Your task to perform on an android device: Open Maps and search for coffee Image 0: 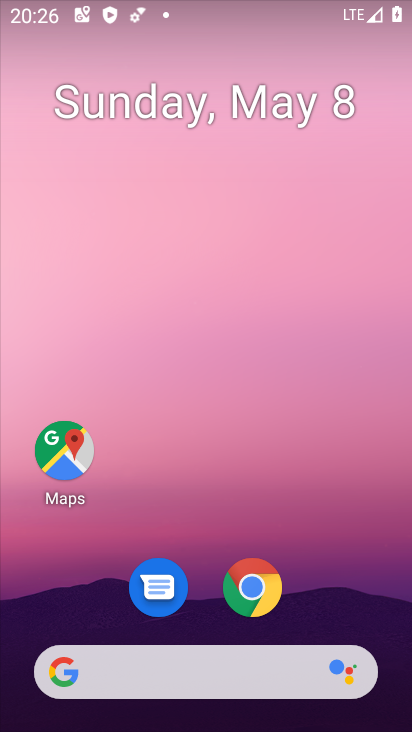
Step 0: click (67, 453)
Your task to perform on an android device: Open Maps and search for coffee Image 1: 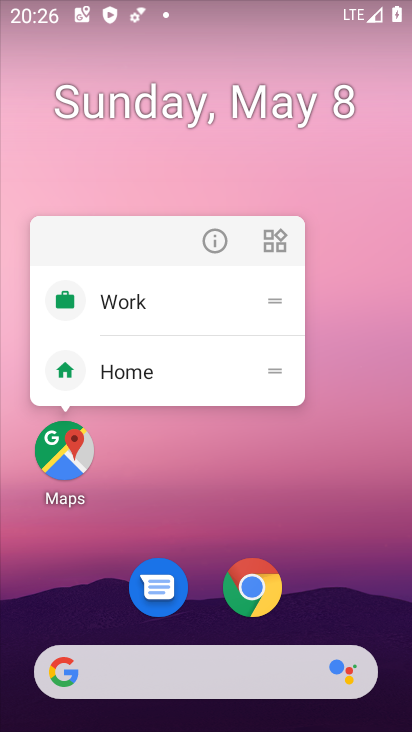
Step 1: click (67, 453)
Your task to perform on an android device: Open Maps and search for coffee Image 2: 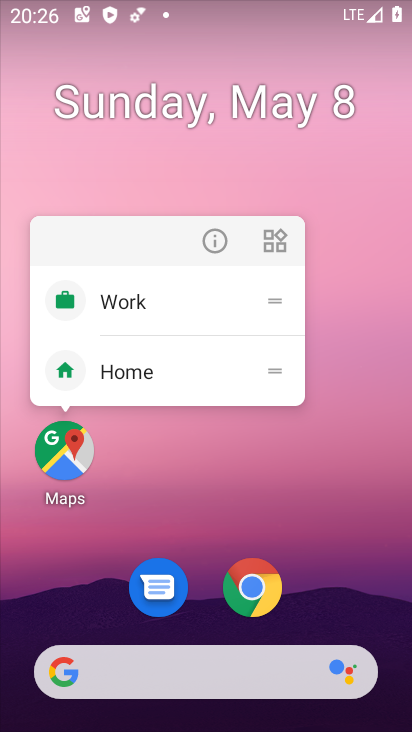
Step 2: click (64, 454)
Your task to perform on an android device: Open Maps and search for coffee Image 3: 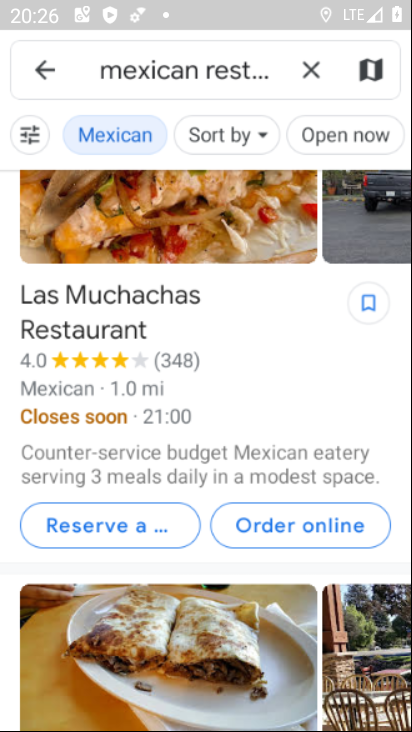
Step 3: click (318, 75)
Your task to perform on an android device: Open Maps and search for coffee Image 4: 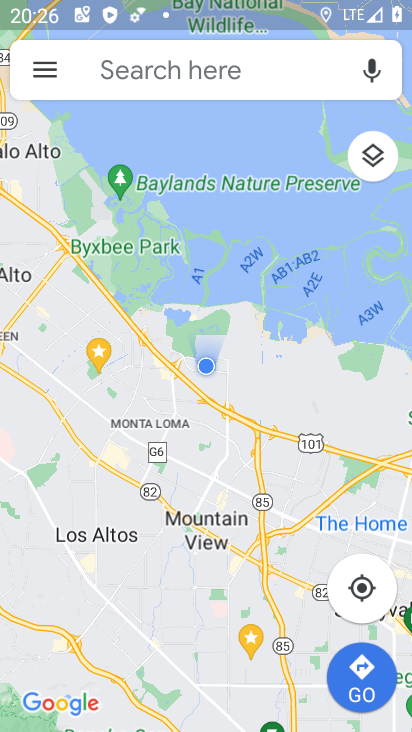
Step 4: click (194, 69)
Your task to perform on an android device: Open Maps and search for coffee Image 5: 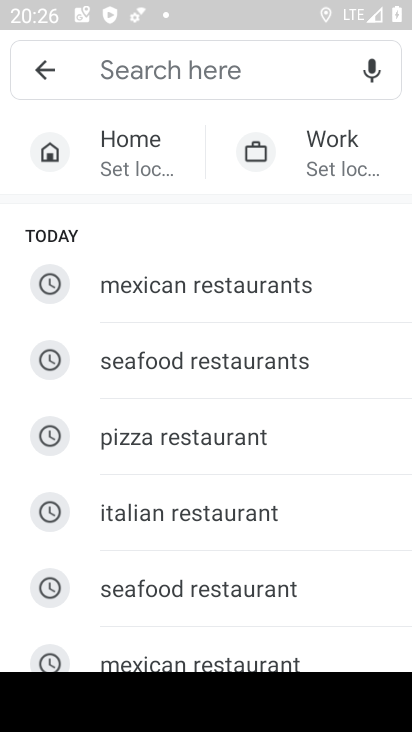
Step 5: type "coffee"
Your task to perform on an android device: Open Maps and search for coffee Image 6: 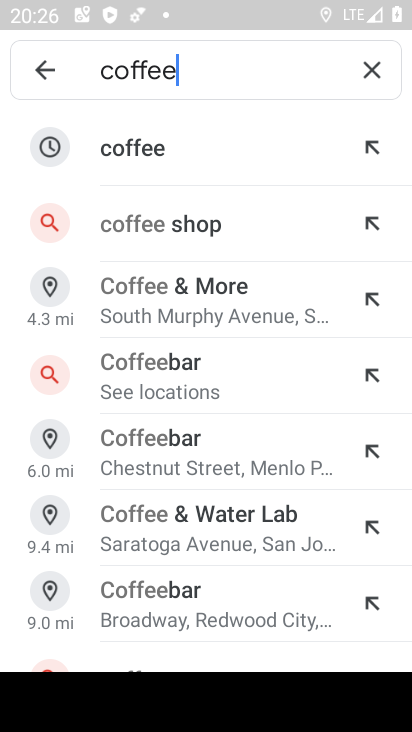
Step 6: click (144, 147)
Your task to perform on an android device: Open Maps and search for coffee Image 7: 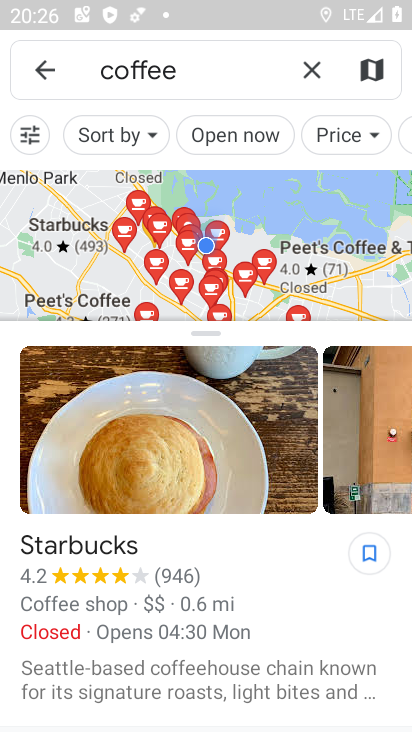
Step 7: task complete